Your task to perform on an android device: check the backup settings in the google photos Image 0: 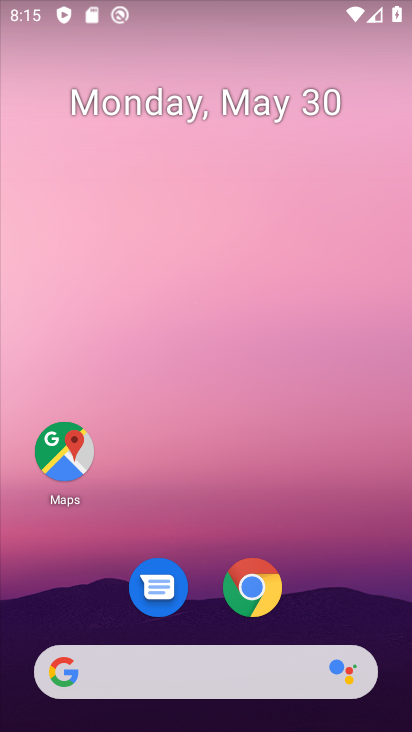
Step 0: drag from (203, 624) to (258, 94)
Your task to perform on an android device: check the backup settings in the google photos Image 1: 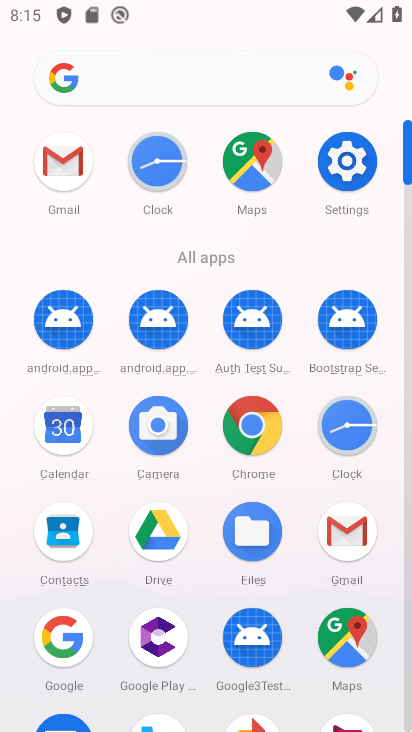
Step 1: drag from (194, 591) to (220, 407)
Your task to perform on an android device: check the backup settings in the google photos Image 2: 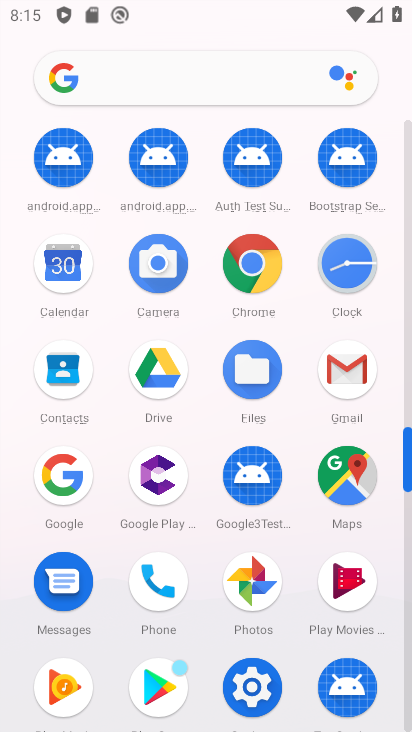
Step 2: click (252, 590)
Your task to perform on an android device: check the backup settings in the google photos Image 3: 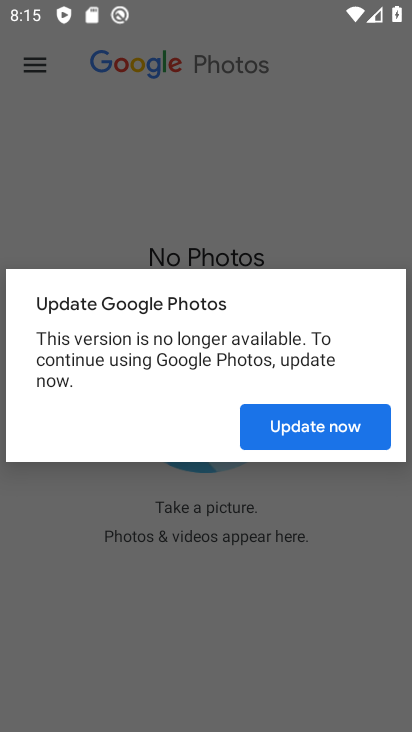
Step 3: click (293, 427)
Your task to perform on an android device: check the backup settings in the google photos Image 4: 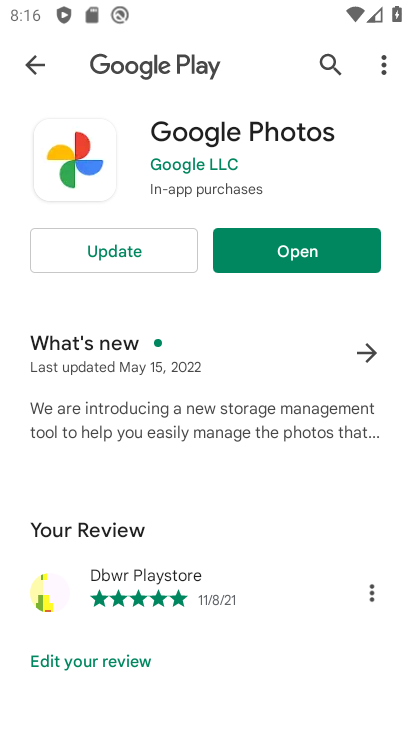
Step 4: click (177, 262)
Your task to perform on an android device: check the backup settings in the google photos Image 5: 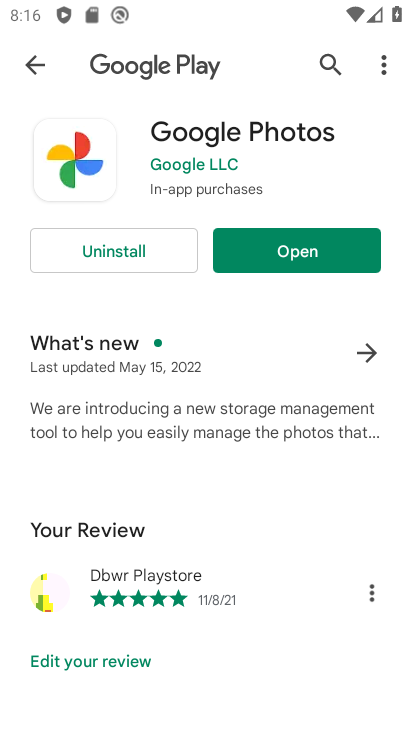
Step 5: click (243, 249)
Your task to perform on an android device: check the backup settings in the google photos Image 6: 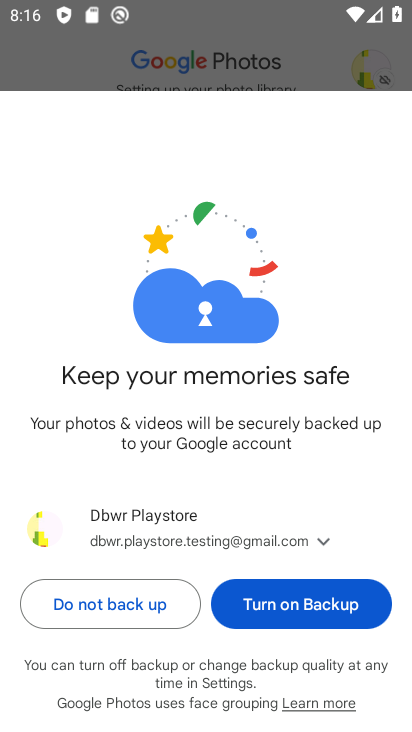
Step 6: click (312, 621)
Your task to perform on an android device: check the backup settings in the google photos Image 7: 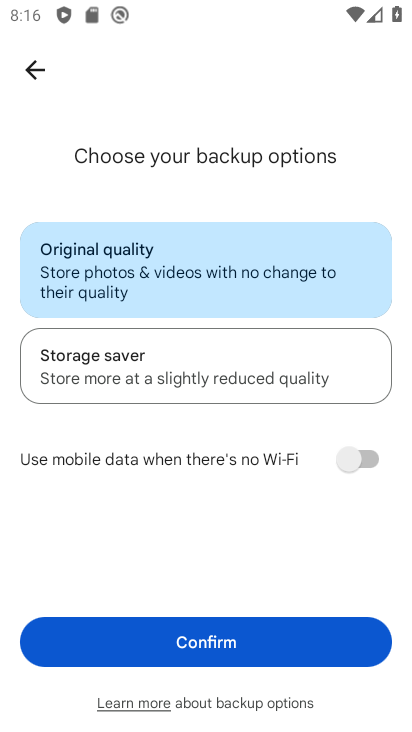
Step 7: task complete